Your task to perform on an android device: allow notifications from all sites in the chrome app Image 0: 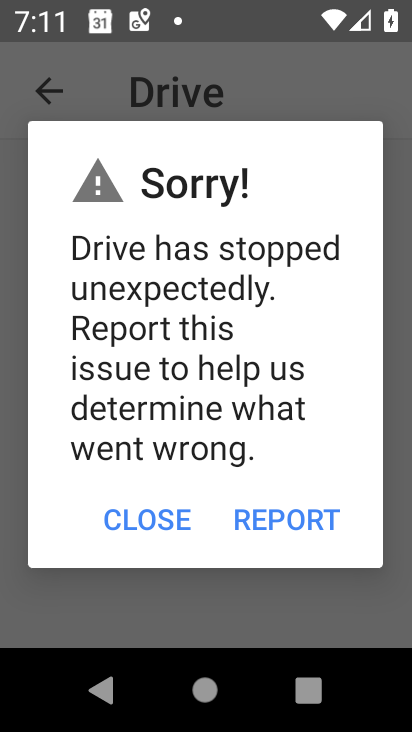
Step 0: press home button
Your task to perform on an android device: allow notifications from all sites in the chrome app Image 1: 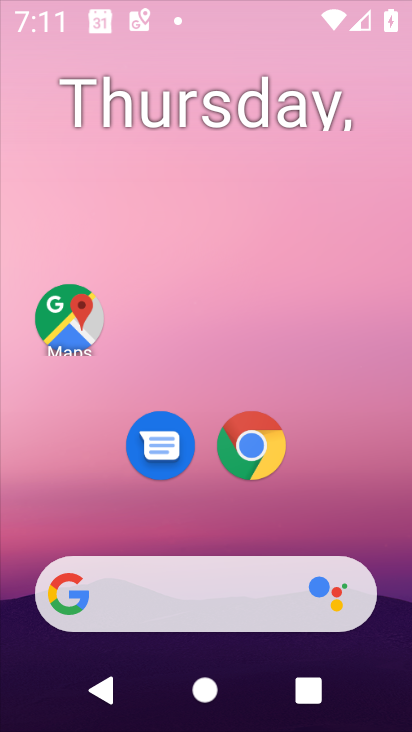
Step 1: drag from (381, 669) to (311, 50)
Your task to perform on an android device: allow notifications from all sites in the chrome app Image 2: 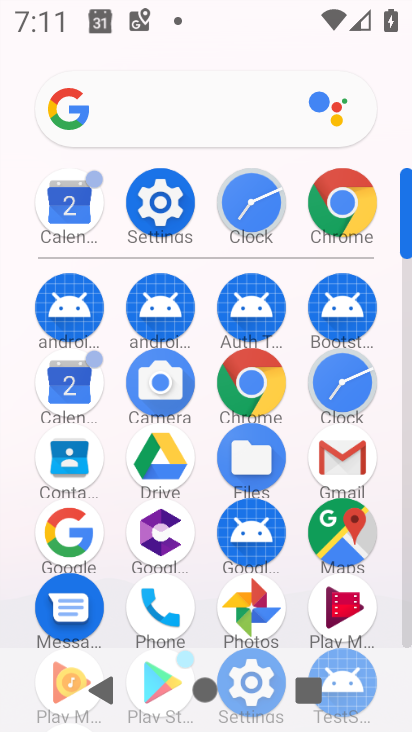
Step 2: click (332, 200)
Your task to perform on an android device: allow notifications from all sites in the chrome app Image 3: 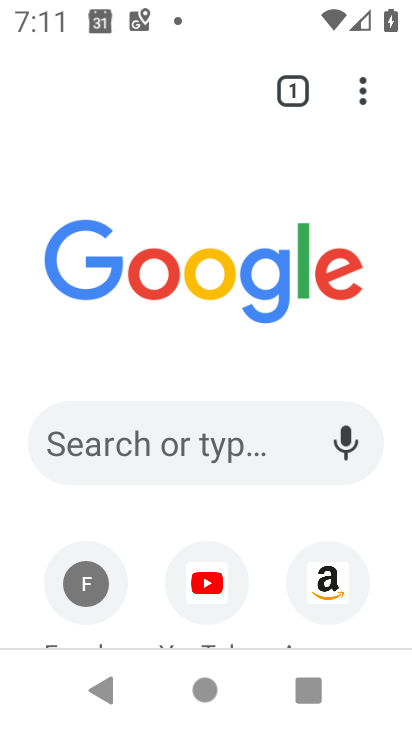
Step 3: click (366, 91)
Your task to perform on an android device: allow notifications from all sites in the chrome app Image 4: 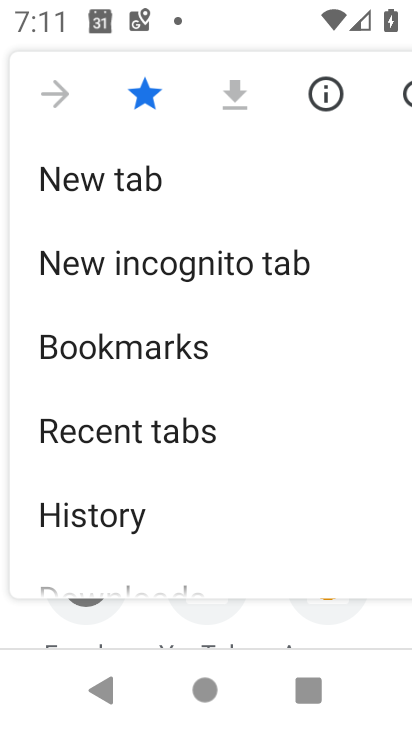
Step 4: drag from (156, 535) to (161, 100)
Your task to perform on an android device: allow notifications from all sites in the chrome app Image 5: 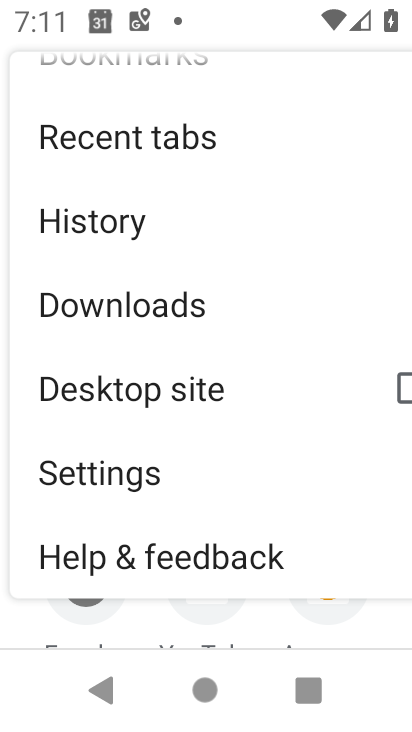
Step 5: click (149, 472)
Your task to perform on an android device: allow notifications from all sites in the chrome app Image 6: 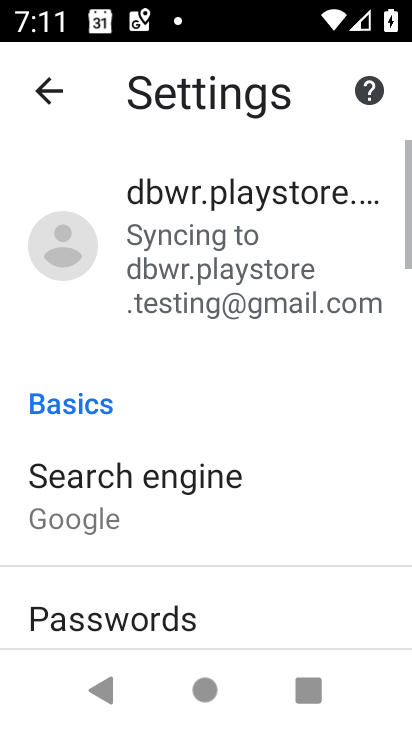
Step 6: drag from (167, 583) to (173, 94)
Your task to perform on an android device: allow notifications from all sites in the chrome app Image 7: 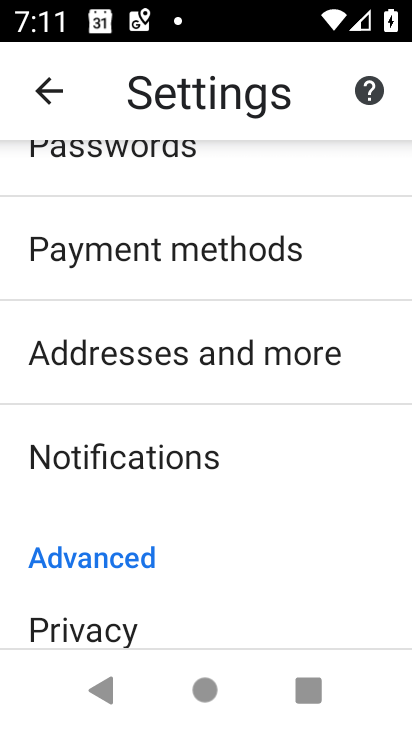
Step 7: click (191, 442)
Your task to perform on an android device: allow notifications from all sites in the chrome app Image 8: 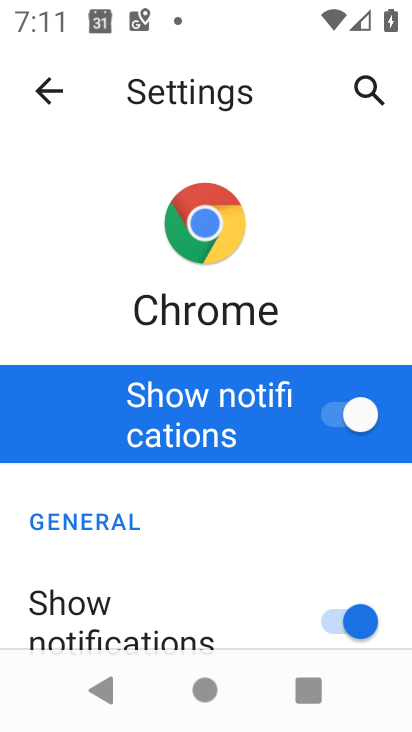
Step 8: task complete